Your task to perform on an android device: View the shopping cart on amazon.com. Add bose quietcomfort 35 to the cart on amazon.com Image 0: 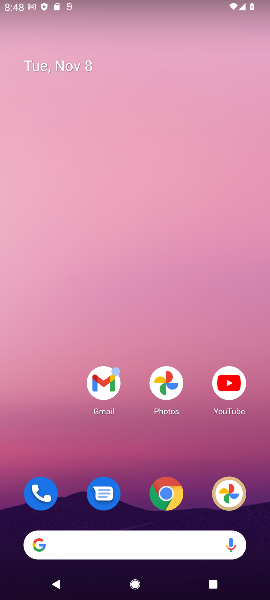
Step 0: click (170, 493)
Your task to perform on an android device: View the shopping cart on amazon.com. Add bose quietcomfort 35 to the cart on amazon.com Image 1: 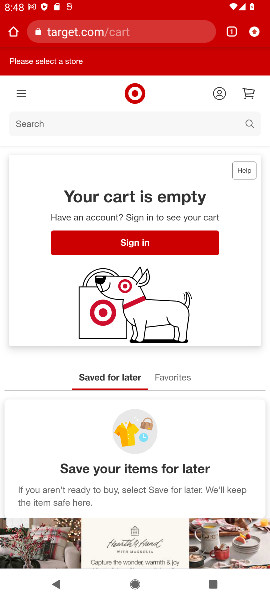
Step 1: click (130, 37)
Your task to perform on an android device: View the shopping cart on amazon.com. Add bose quietcomfort 35 to the cart on amazon.com Image 2: 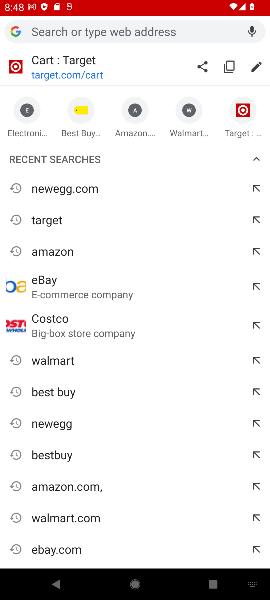
Step 2: click (135, 127)
Your task to perform on an android device: View the shopping cart on amazon.com. Add bose quietcomfort 35 to the cart on amazon.com Image 3: 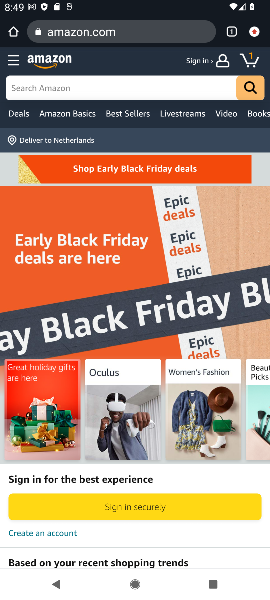
Step 3: click (253, 61)
Your task to perform on an android device: View the shopping cart on amazon.com. Add bose quietcomfort 35 to the cart on amazon.com Image 4: 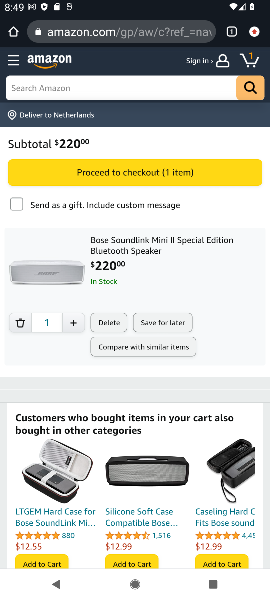
Step 4: click (85, 89)
Your task to perform on an android device: View the shopping cart on amazon.com. Add bose quietcomfort 35 to the cart on amazon.com Image 5: 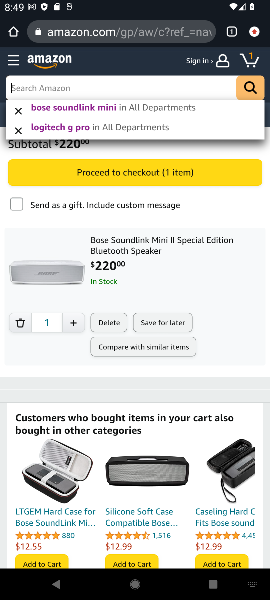
Step 5: type " bose quietcomfort 35"
Your task to perform on an android device: View the shopping cart on amazon.com. Add bose quietcomfort 35 to the cart on amazon.com Image 6: 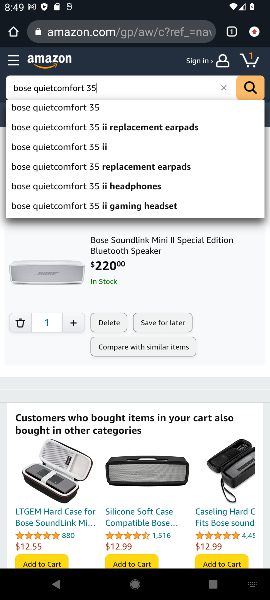
Step 6: click (81, 108)
Your task to perform on an android device: View the shopping cart on amazon.com. Add bose quietcomfort 35 to the cart on amazon.com Image 7: 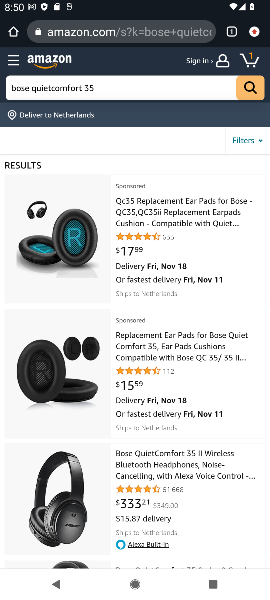
Step 7: click (95, 486)
Your task to perform on an android device: View the shopping cart on amazon.com. Add bose quietcomfort 35 to the cart on amazon.com Image 8: 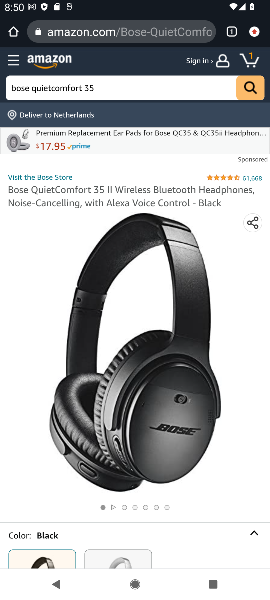
Step 8: drag from (132, 456) to (100, 188)
Your task to perform on an android device: View the shopping cart on amazon.com. Add bose quietcomfort 35 to the cart on amazon.com Image 9: 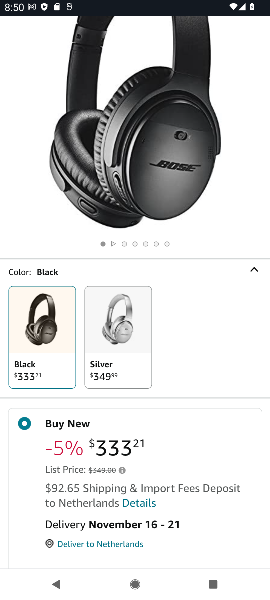
Step 9: drag from (214, 421) to (189, 219)
Your task to perform on an android device: View the shopping cart on amazon.com. Add bose quietcomfort 35 to the cart on amazon.com Image 10: 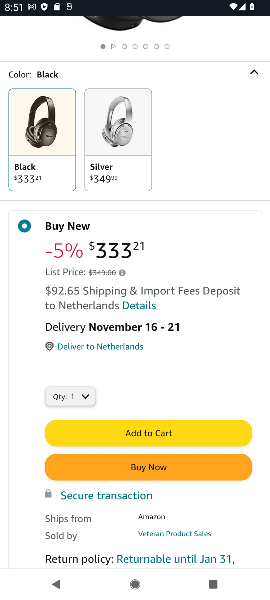
Step 10: click (145, 435)
Your task to perform on an android device: View the shopping cart on amazon.com. Add bose quietcomfort 35 to the cart on amazon.com Image 11: 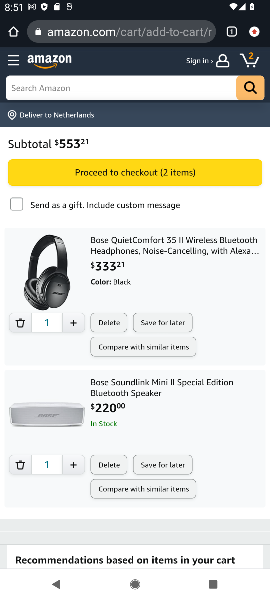
Step 11: task complete